Your task to perform on an android device: Open Reddit.com Image 0: 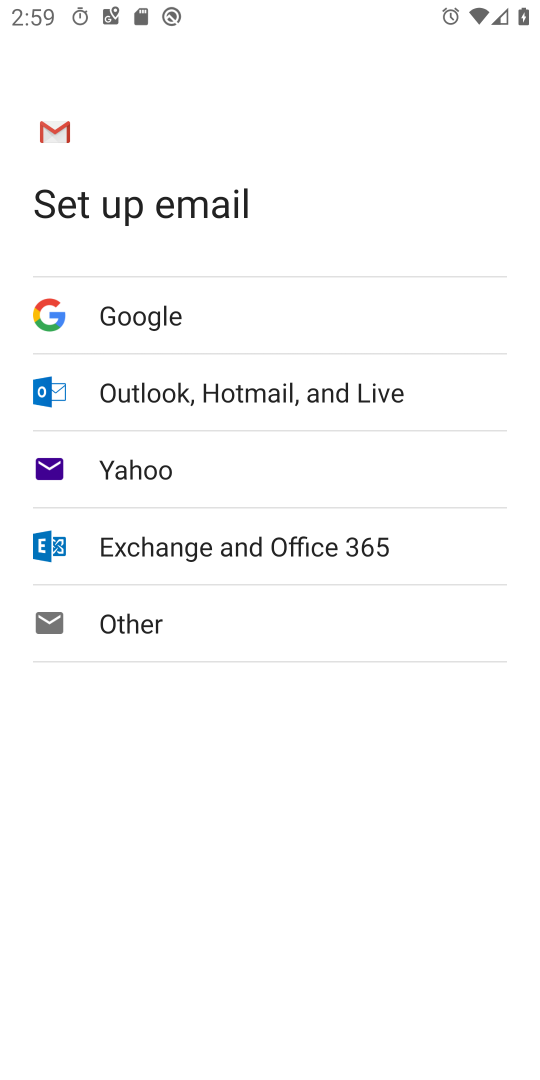
Step 0: press home button
Your task to perform on an android device: Open Reddit.com Image 1: 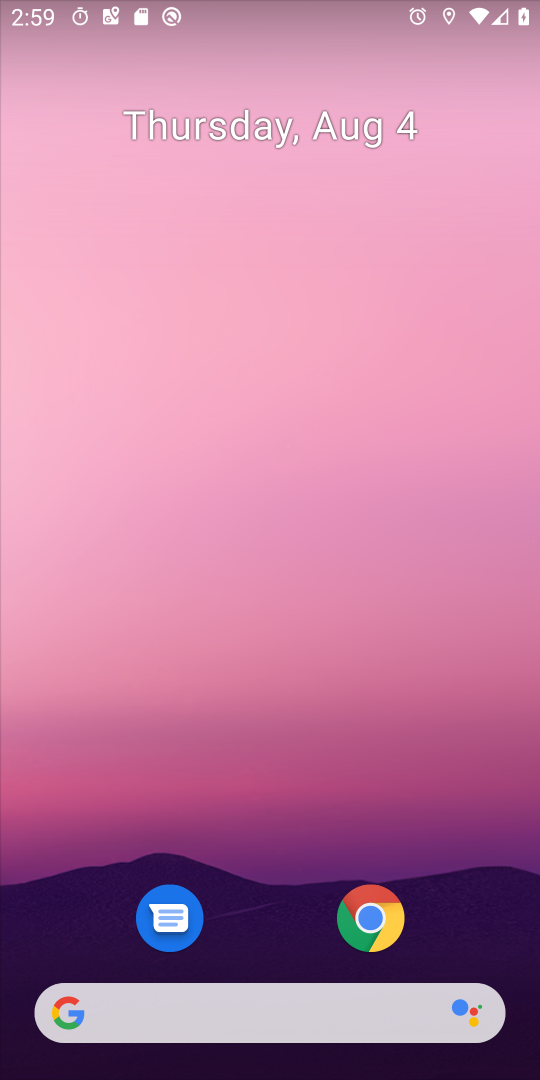
Step 1: click (355, 941)
Your task to perform on an android device: Open Reddit.com Image 2: 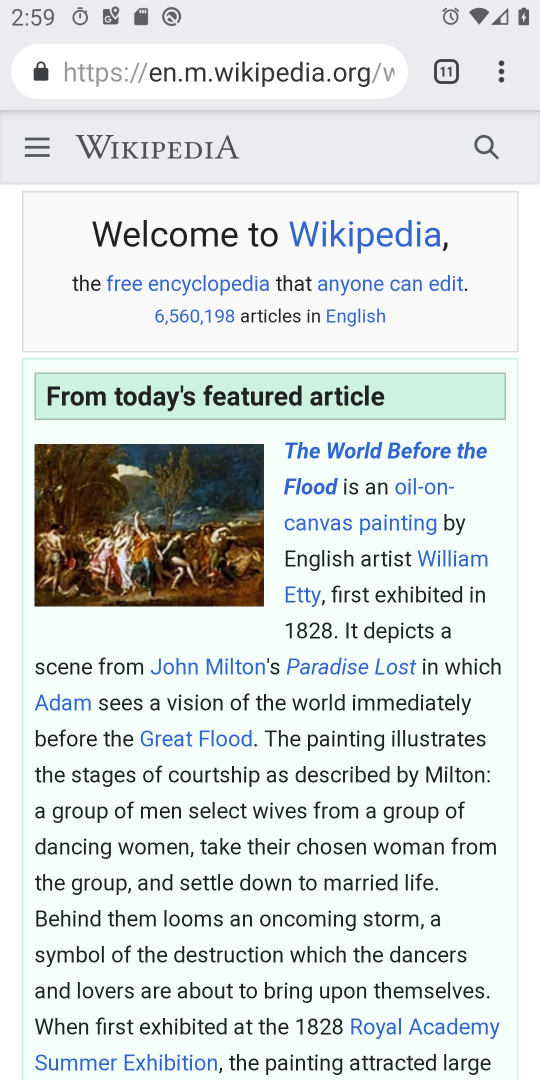
Step 2: click (434, 69)
Your task to perform on an android device: Open Reddit.com Image 3: 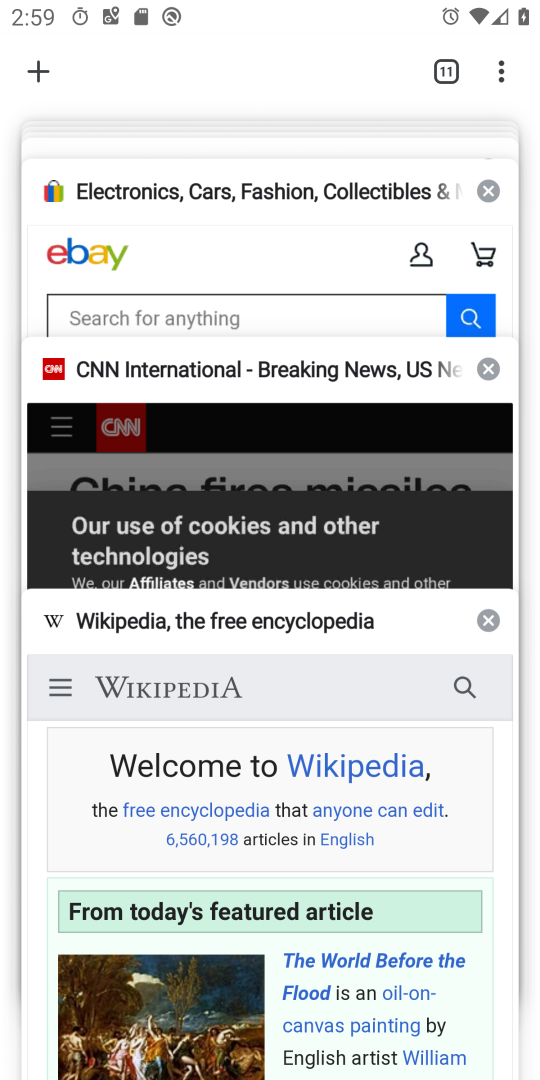
Step 3: click (42, 77)
Your task to perform on an android device: Open Reddit.com Image 4: 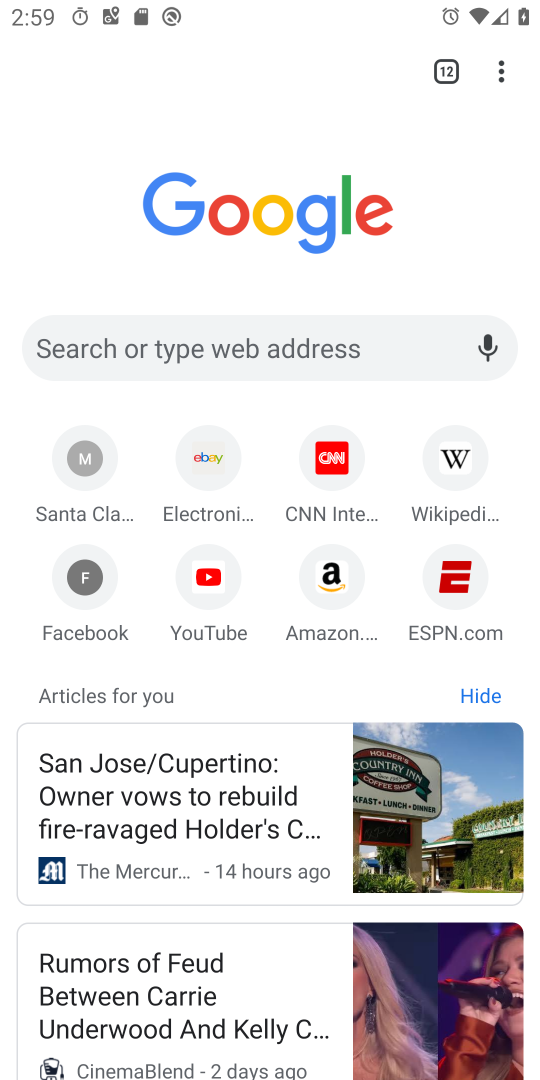
Step 4: click (184, 340)
Your task to perform on an android device: Open Reddit.com Image 5: 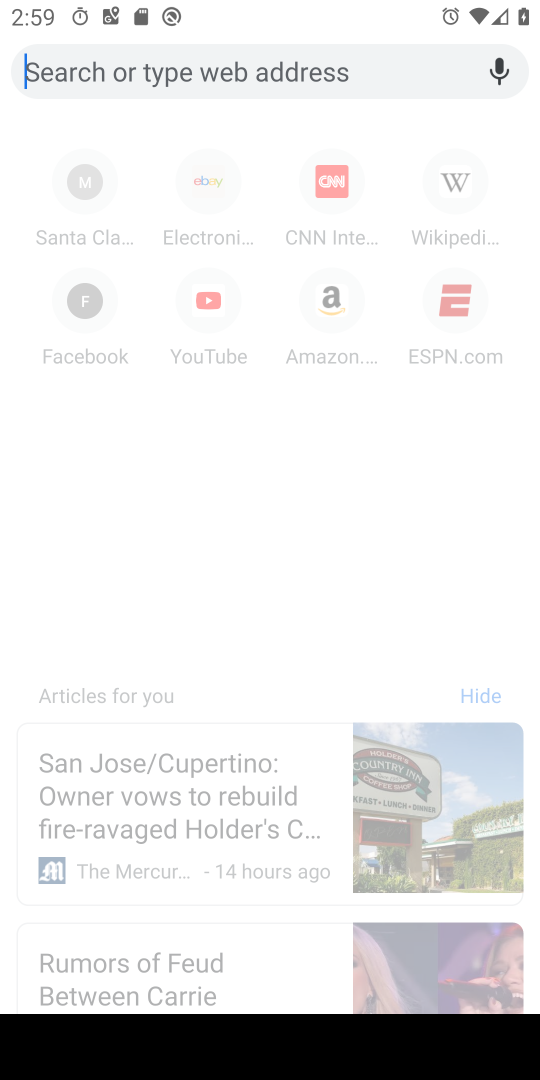
Step 5: type "Reddit.com"
Your task to perform on an android device: Open Reddit.com Image 6: 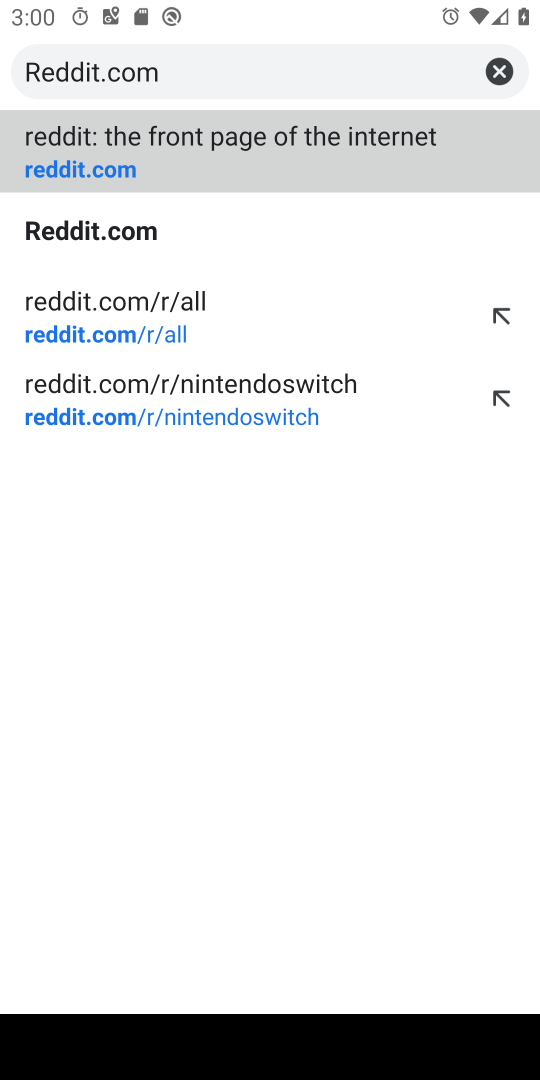
Step 6: click (147, 174)
Your task to perform on an android device: Open Reddit.com Image 7: 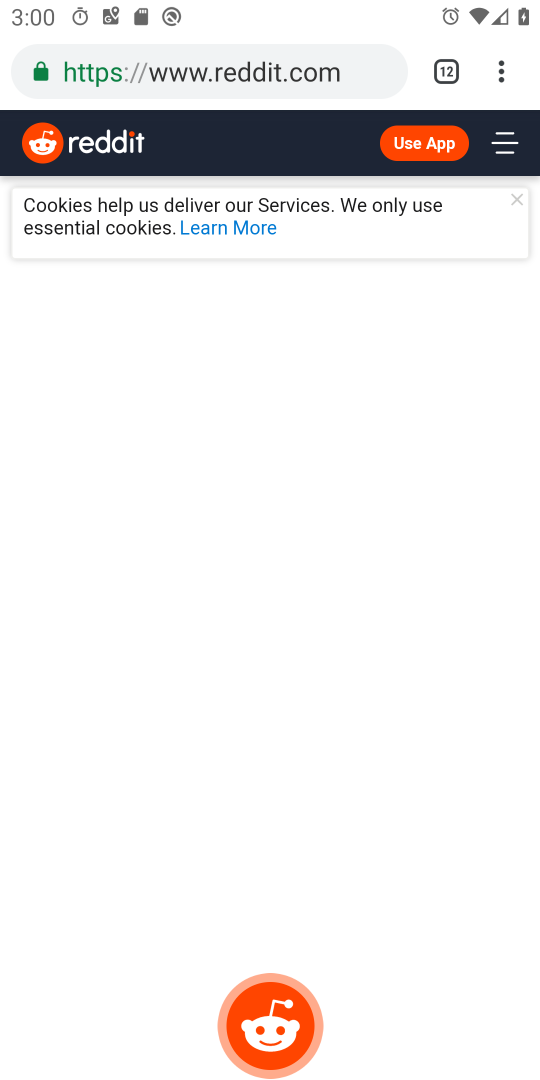
Step 7: task complete